Your task to perform on an android device: change timer sound Image 0: 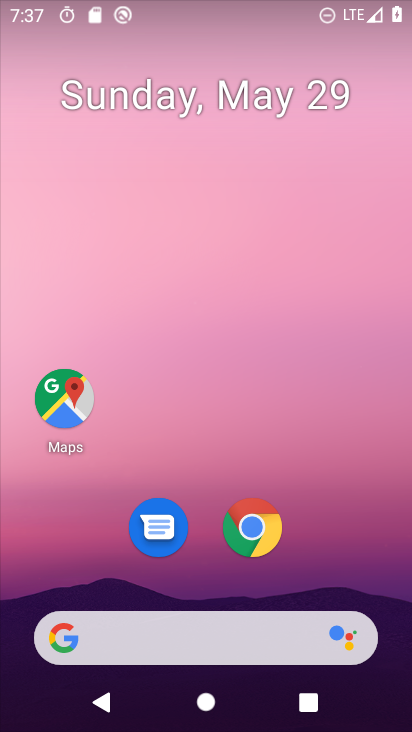
Step 0: drag from (350, 553) to (369, 83)
Your task to perform on an android device: change timer sound Image 1: 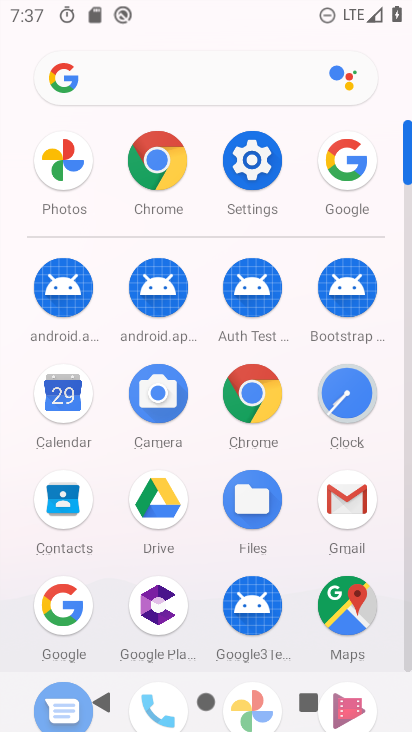
Step 1: click (340, 407)
Your task to perform on an android device: change timer sound Image 2: 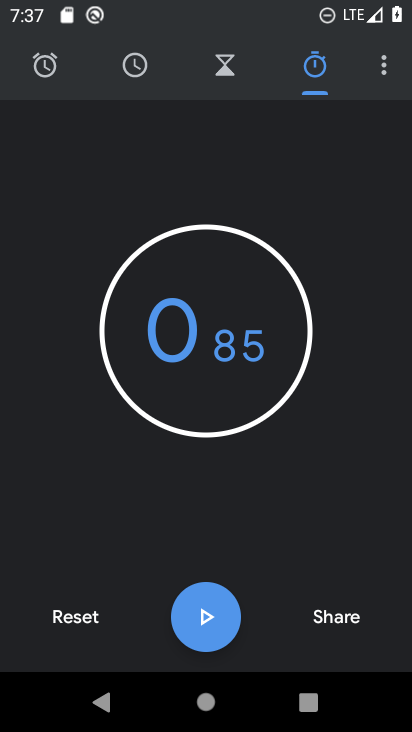
Step 2: click (390, 54)
Your task to perform on an android device: change timer sound Image 3: 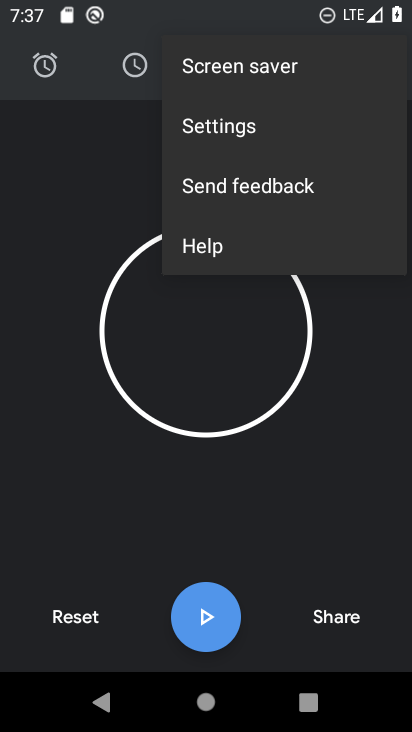
Step 3: click (272, 141)
Your task to perform on an android device: change timer sound Image 4: 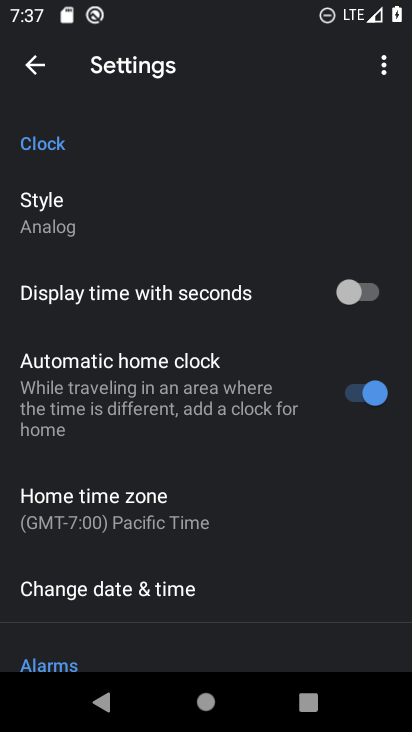
Step 4: drag from (176, 630) to (276, 93)
Your task to perform on an android device: change timer sound Image 5: 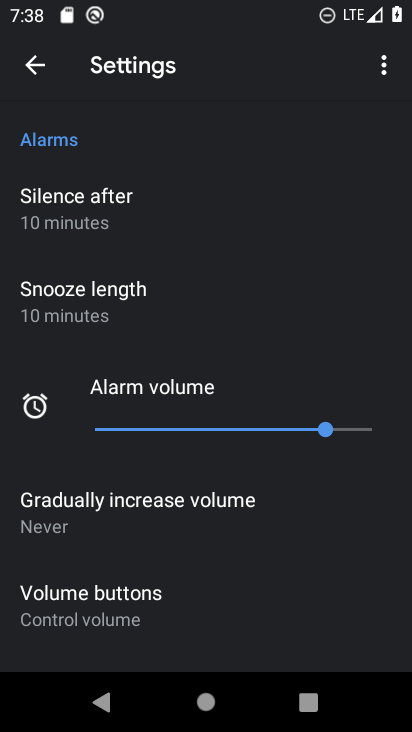
Step 5: drag from (178, 603) to (244, 205)
Your task to perform on an android device: change timer sound Image 6: 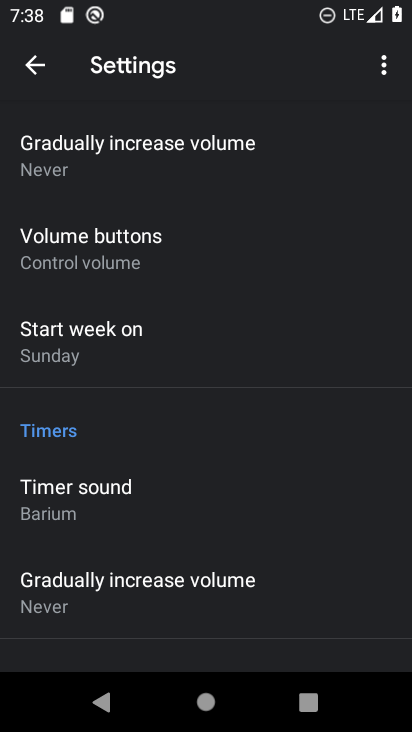
Step 6: click (143, 517)
Your task to perform on an android device: change timer sound Image 7: 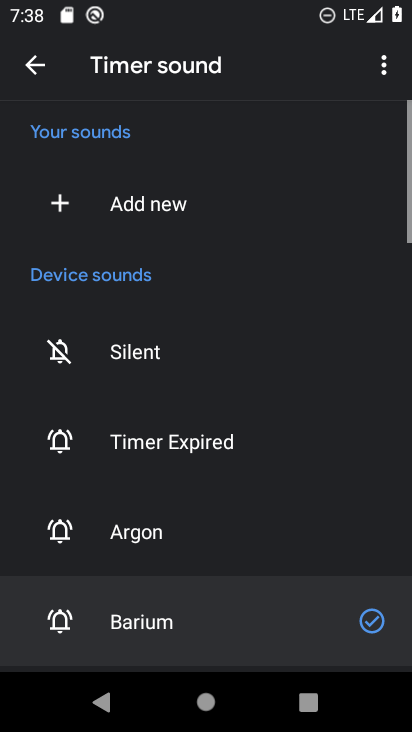
Step 7: click (144, 516)
Your task to perform on an android device: change timer sound Image 8: 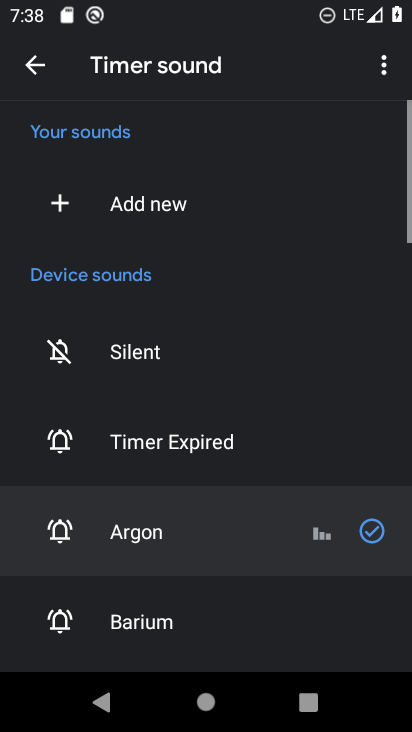
Step 8: task complete